Your task to perform on an android device: see tabs open on other devices in the chrome app Image 0: 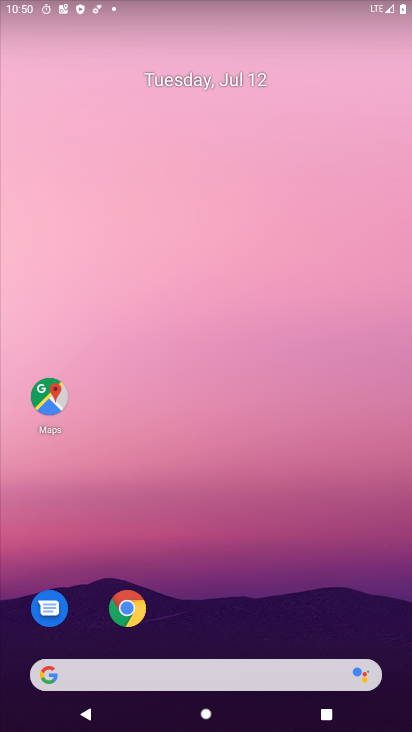
Step 0: click (124, 604)
Your task to perform on an android device: see tabs open on other devices in the chrome app Image 1: 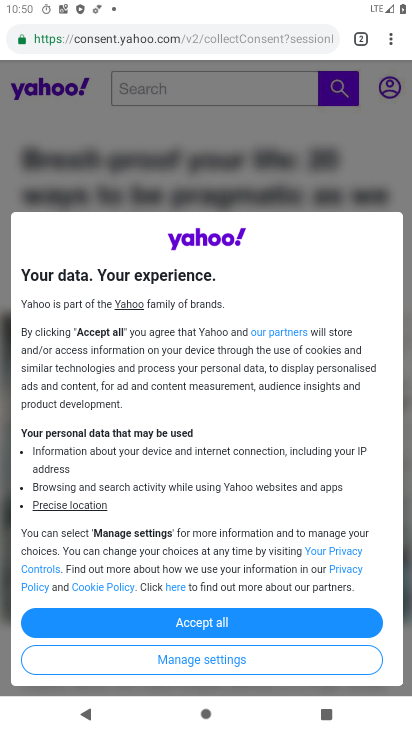
Step 1: click (393, 38)
Your task to perform on an android device: see tabs open on other devices in the chrome app Image 2: 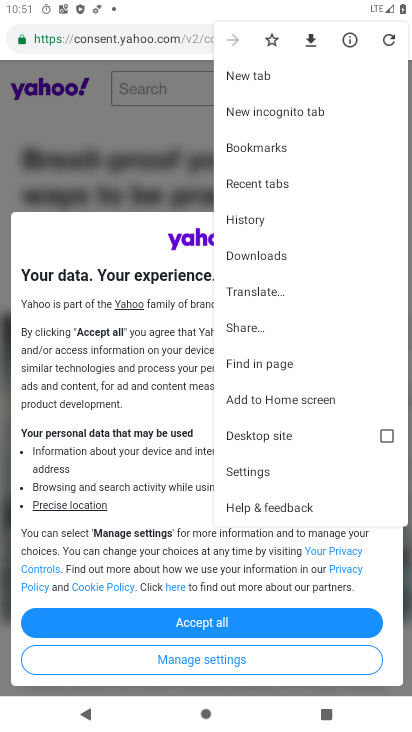
Step 2: click (252, 181)
Your task to perform on an android device: see tabs open on other devices in the chrome app Image 3: 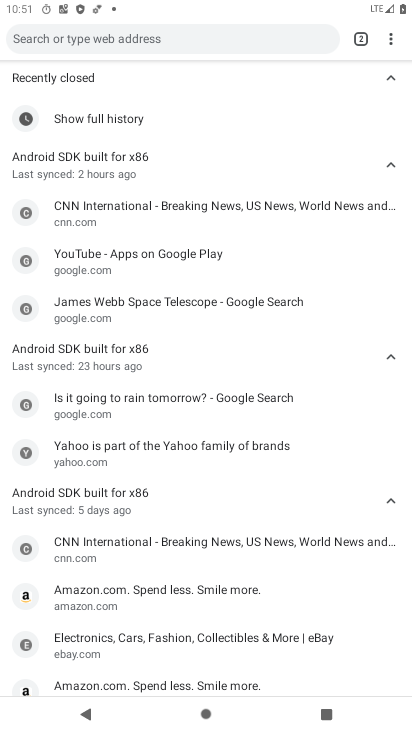
Step 3: task complete